Your task to perform on an android device: star an email in the gmail app Image 0: 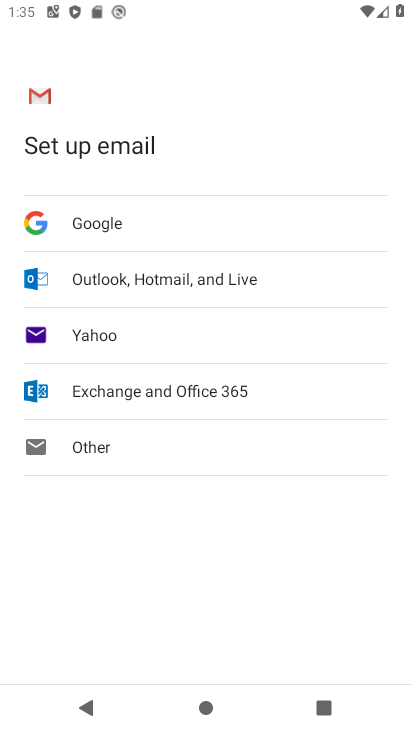
Step 0: press home button
Your task to perform on an android device: star an email in the gmail app Image 1: 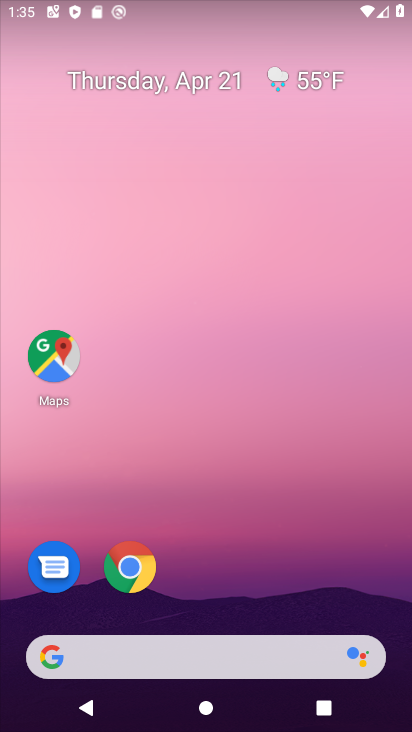
Step 1: drag from (219, 604) to (227, 167)
Your task to perform on an android device: star an email in the gmail app Image 2: 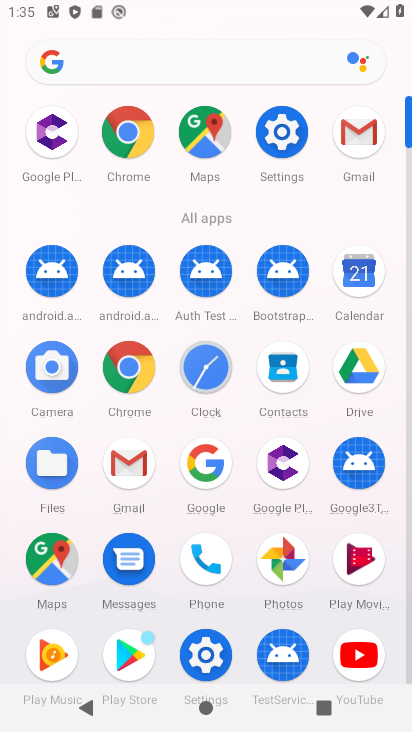
Step 2: click (354, 130)
Your task to perform on an android device: star an email in the gmail app Image 3: 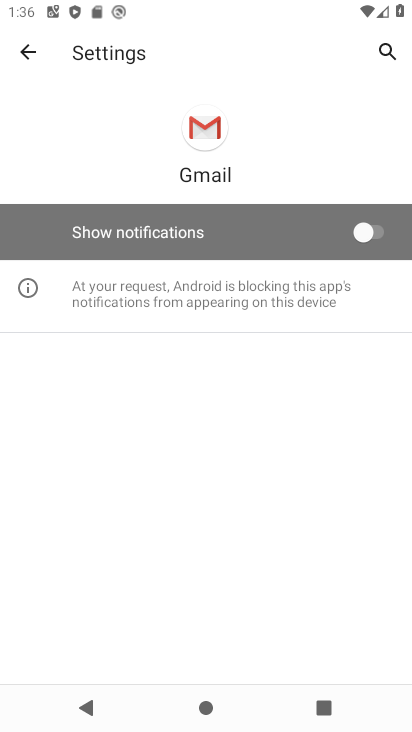
Step 3: click (21, 56)
Your task to perform on an android device: star an email in the gmail app Image 4: 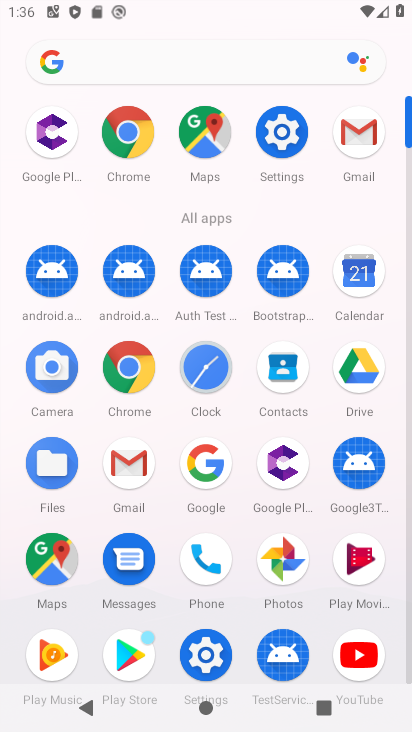
Step 4: click (363, 126)
Your task to perform on an android device: star an email in the gmail app Image 5: 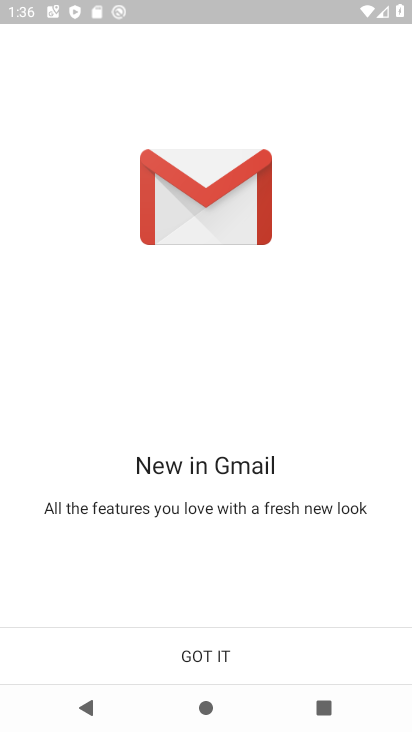
Step 5: click (156, 656)
Your task to perform on an android device: star an email in the gmail app Image 6: 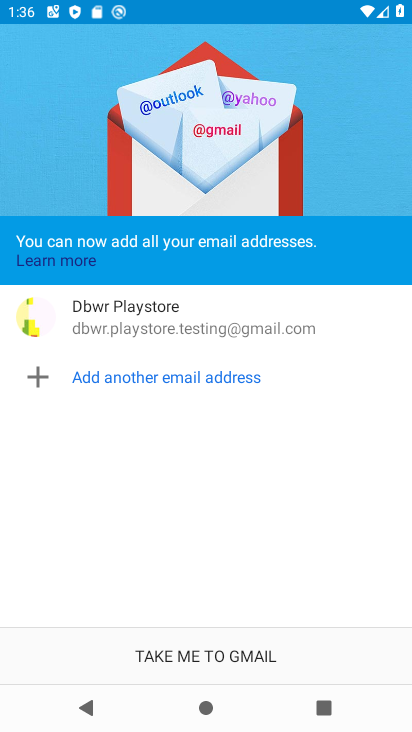
Step 6: click (156, 651)
Your task to perform on an android device: star an email in the gmail app Image 7: 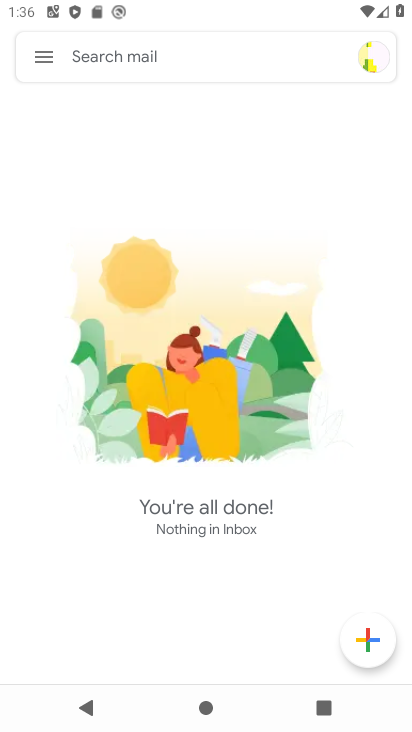
Step 7: click (34, 55)
Your task to perform on an android device: star an email in the gmail app Image 8: 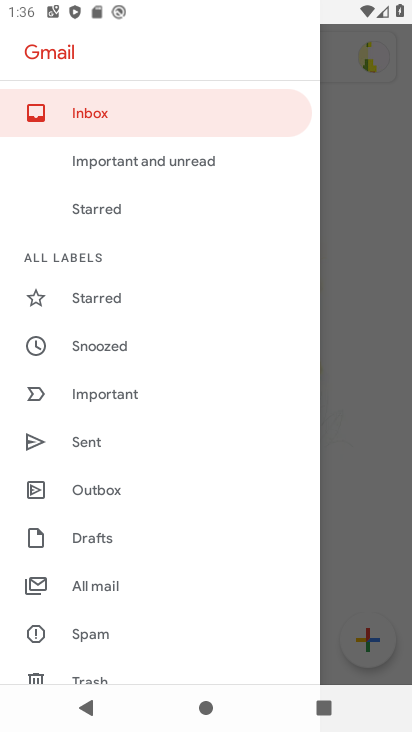
Step 8: click (121, 582)
Your task to perform on an android device: star an email in the gmail app Image 9: 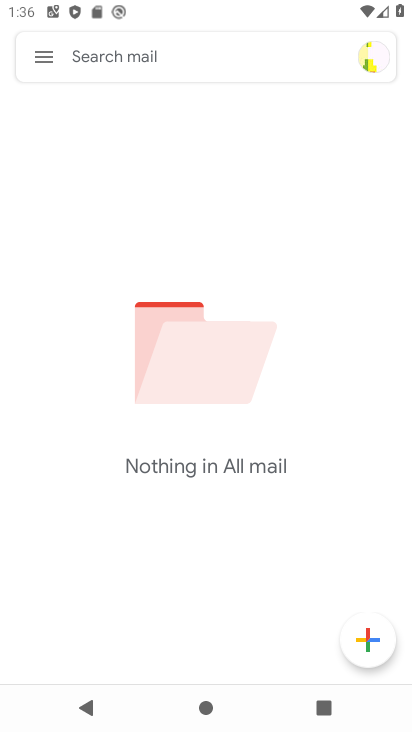
Step 9: task complete